Your task to perform on an android device: turn on improve location accuracy Image 0: 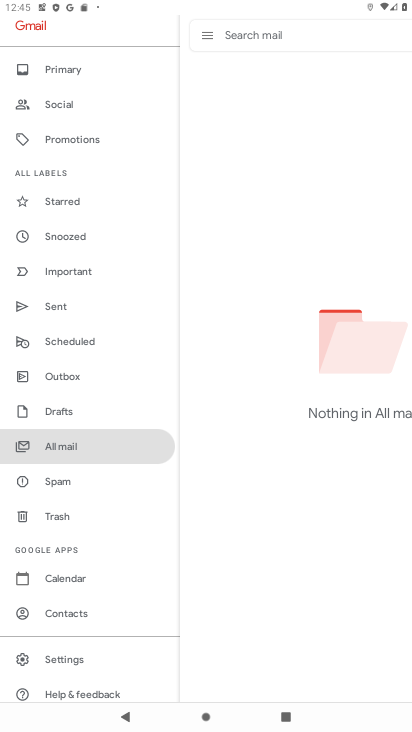
Step 0: press home button
Your task to perform on an android device: turn on improve location accuracy Image 1: 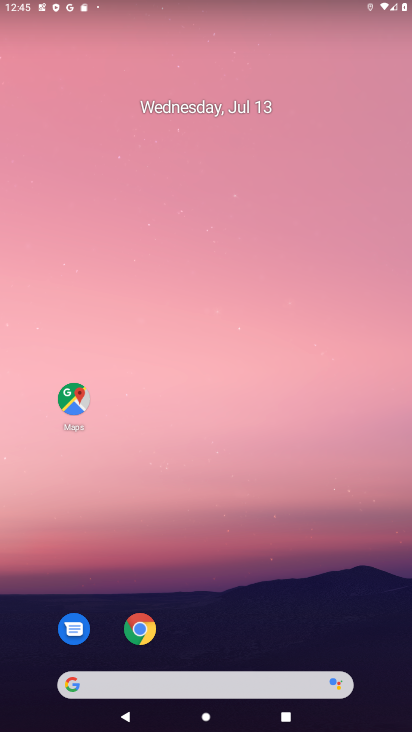
Step 1: drag from (206, 627) to (211, 356)
Your task to perform on an android device: turn on improve location accuracy Image 2: 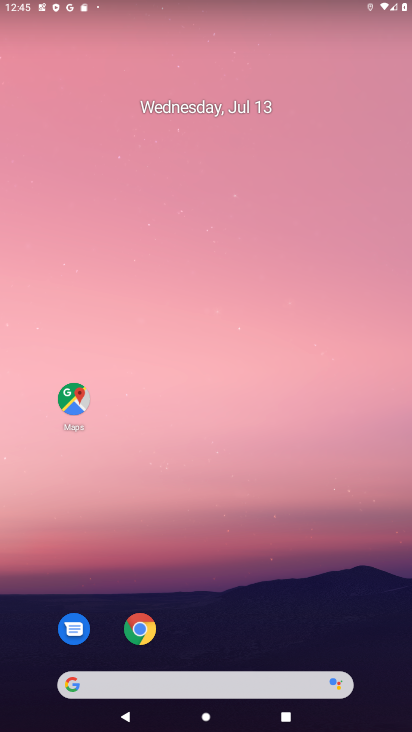
Step 2: drag from (275, 509) to (278, 331)
Your task to perform on an android device: turn on improve location accuracy Image 3: 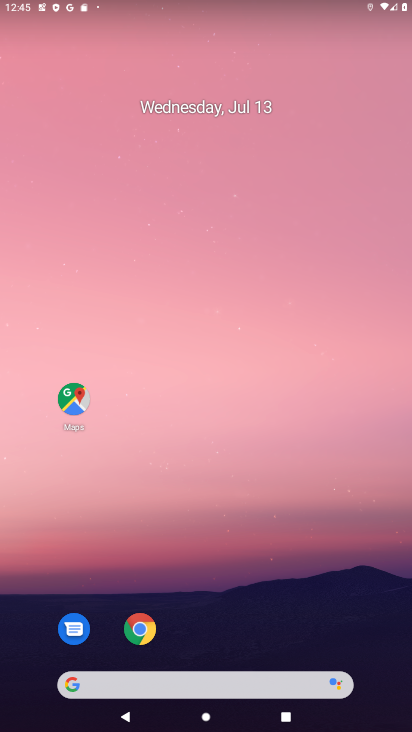
Step 3: drag from (260, 672) to (242, 495)
Your task to perform on an android device: turn on improve location accuracy Image 4: 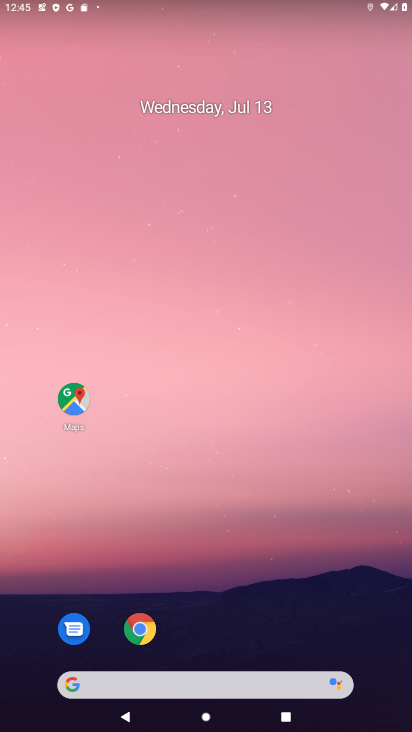
Step 4: drag from (202, 623) to (266, 233)
Your task to perform on an android device: turn on improve location accuracy Image 5: 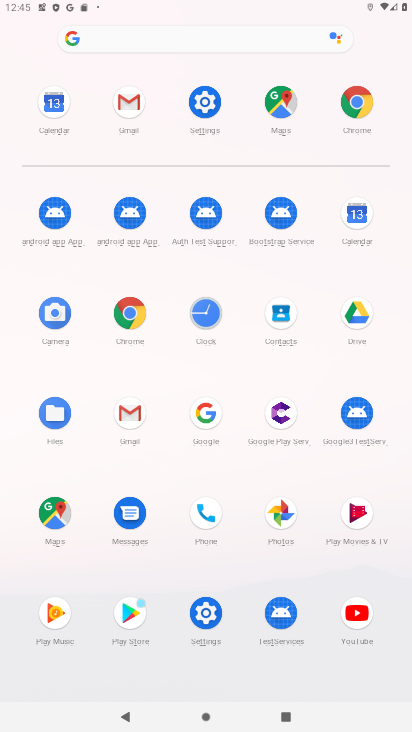
Step 5: click (193, 105)
Your task to perform on an android device: turn on improve location accuracy Image 6: 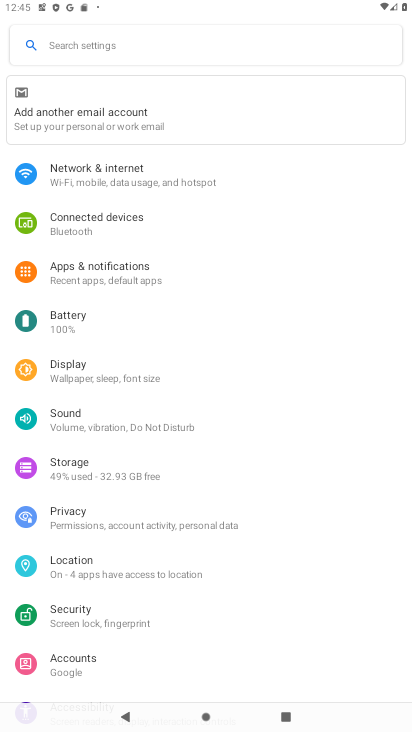
Step 6: click (111, 568)
Your task to perform on an android device: turn on improve location accuracy Image 7: 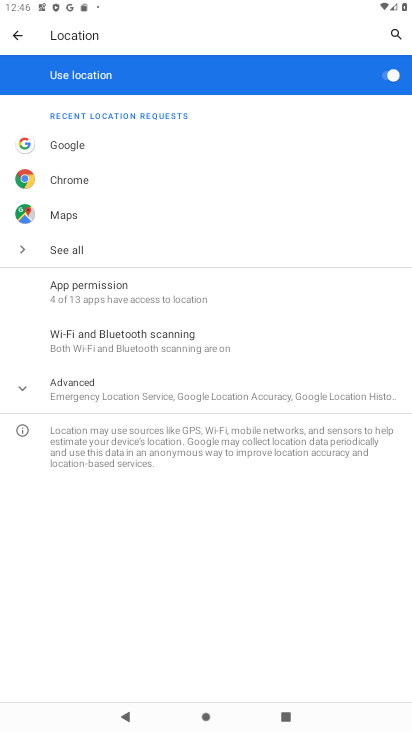
Step 7: click (120, 386)
Your task to perform on an android device: turn on improve location accuracy Image 8: 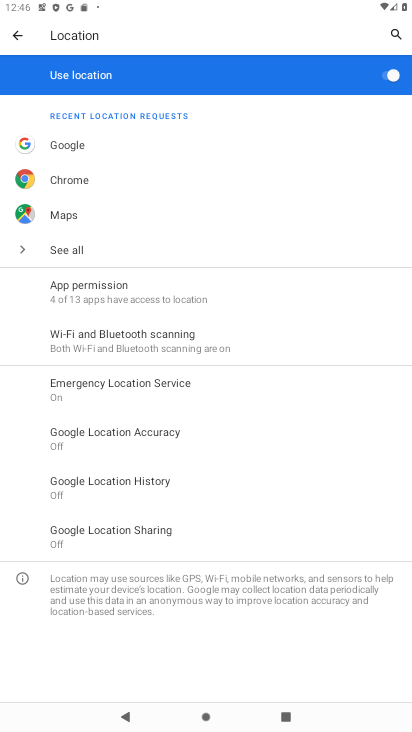
Step 8: click (144, 452)
Your task to perform on an android device: turn on improve location accuracy Image 9: 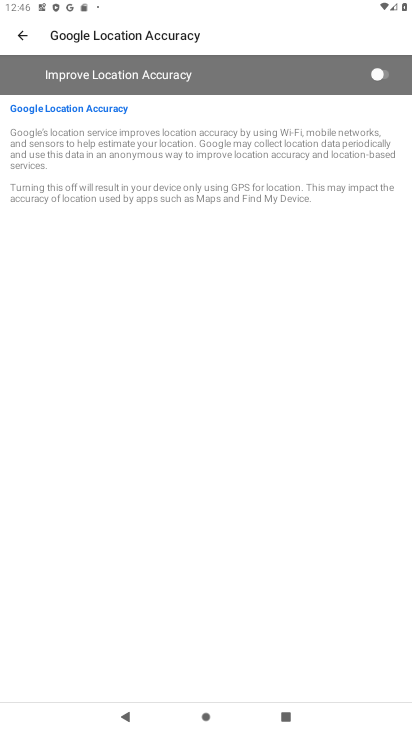
Step 9: click (384, 68)
Your task to perform on an android device: turn on improve location accuracy Image 10: 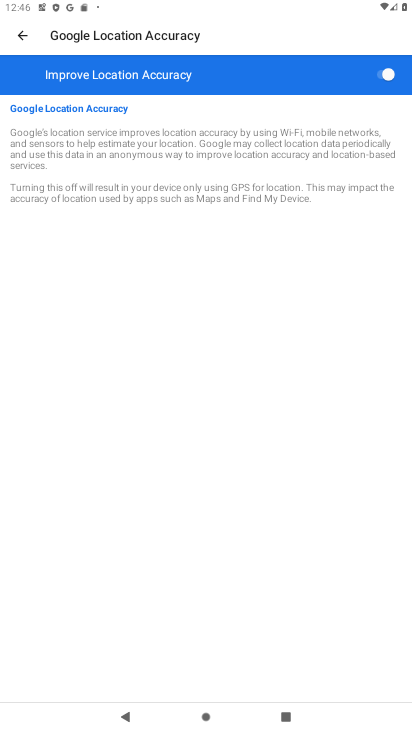
Step 10: task complete